Your task to perform on an android device: turn on wifi Image 0: 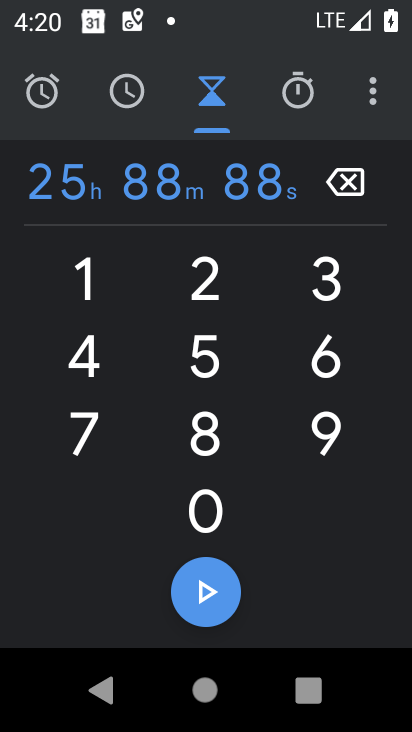
Step 0: press home button
Your task to perform on an android device: turn on wifi Image 1: 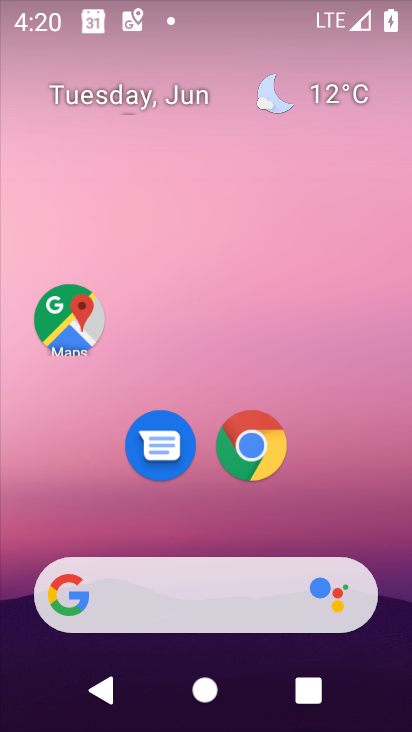
Step 1: drag from (361, 513) to (254, 0)
Your task to perform on an android device: turn on wifi Image 2: 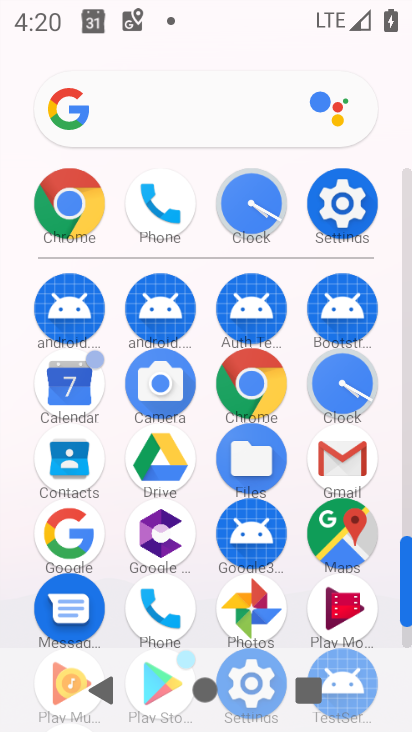
Step 2: click (357, 188)
Your task to perform on an android device: turn on wifi Image 3: 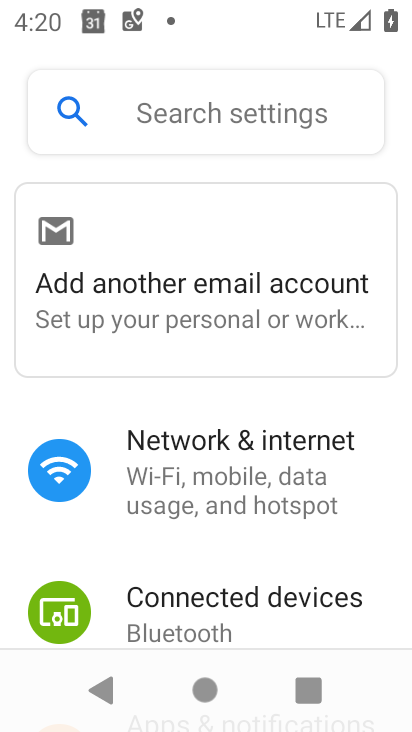
Step 3: click (203, 436)
Your task to perform on an android device: turn on wifi Image 4: 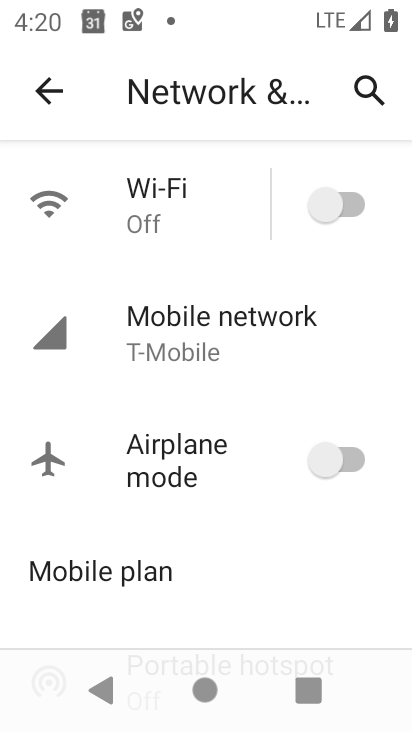
Step 4: click (148, 242)
Your task to perform on an android device: turn on wifi Image 5: 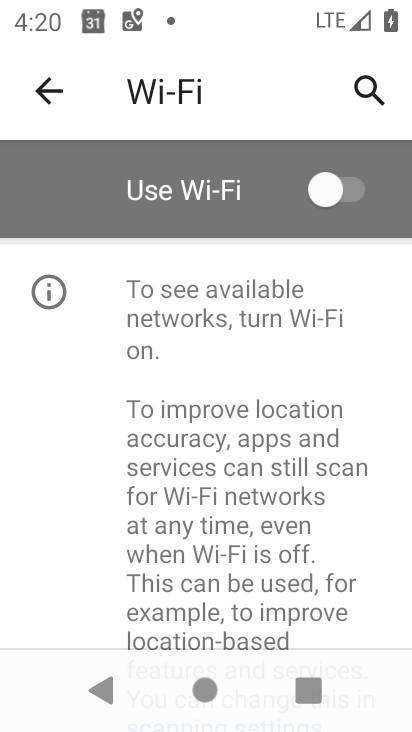
Step 5: click (359, 178)
Your task to perform on an android device: turn on wifi Image 6: 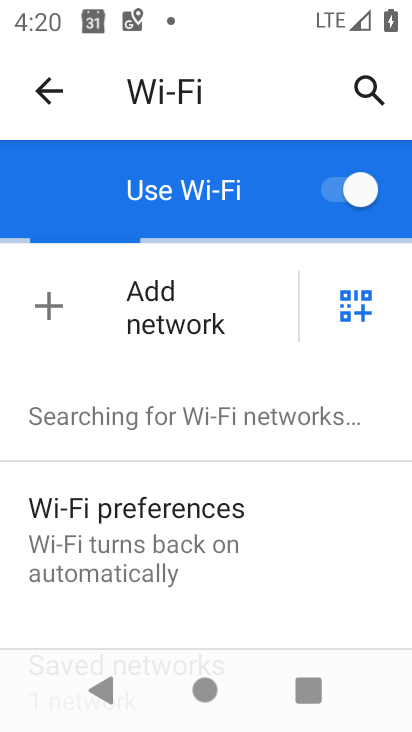
Step 6: task complete